Your task to perform on an android device: all mails in gmail Image 0: 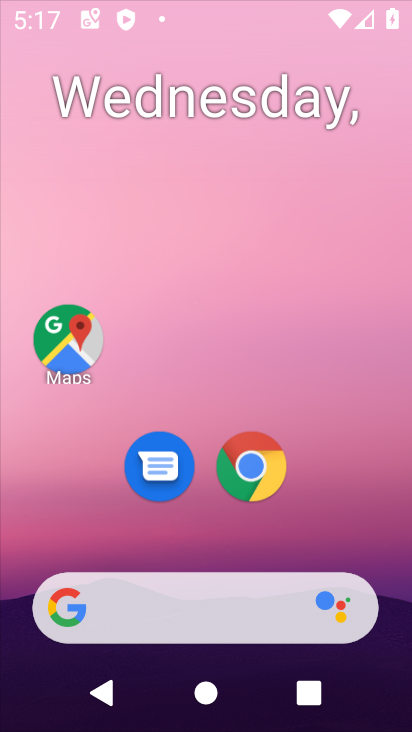
Step 0: click (380, 27)
Your task to perform on an android device: all mails in gmail Image 1: 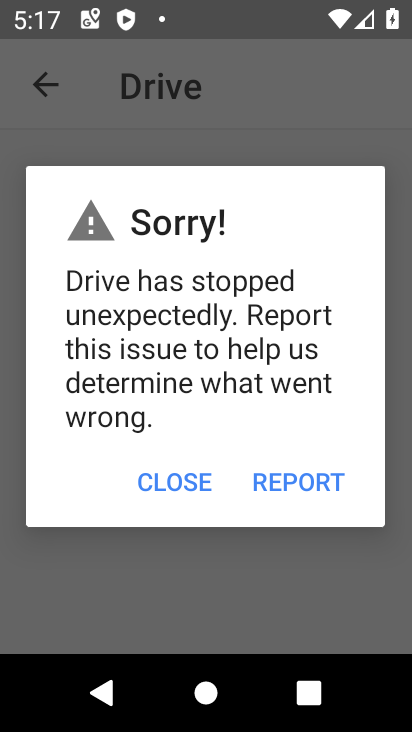
Step 1: press home button
Your task to perform on an android device: all mails in gmail Image 2: 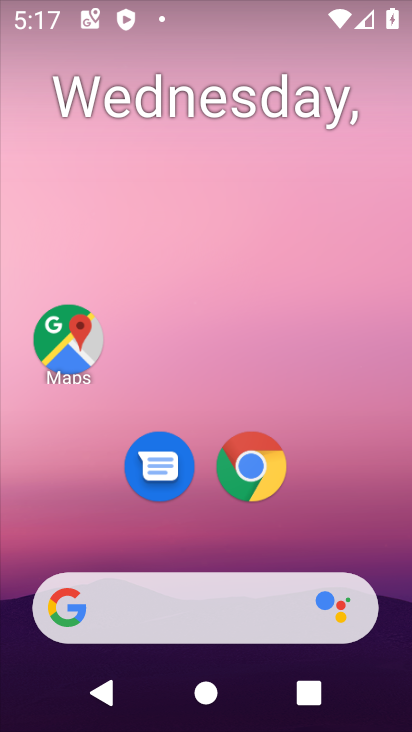
Step 2: drag from (401, 662) to (259, 144)
Your task to perform on an android device: all mails in gmail Image 3: 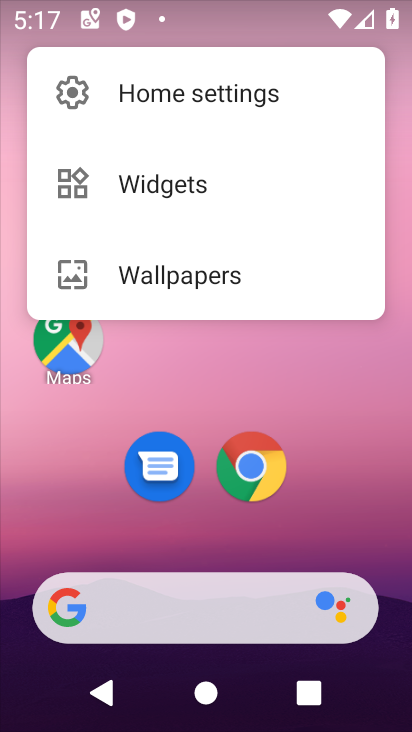
Step 3: drag from (305, 527) to (291, 187)
Your task to perform on an android device: all mails in gmail Image 4: 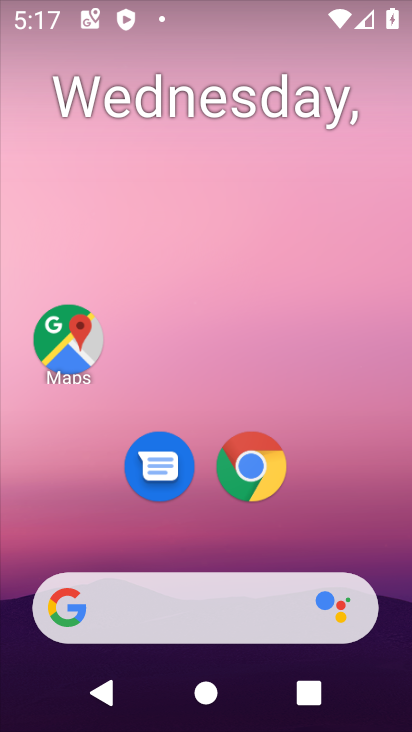
Step 4: drag from (320, 262) to (316, 11)
Your task to perform on an android device: all mails in gmail Image 5: 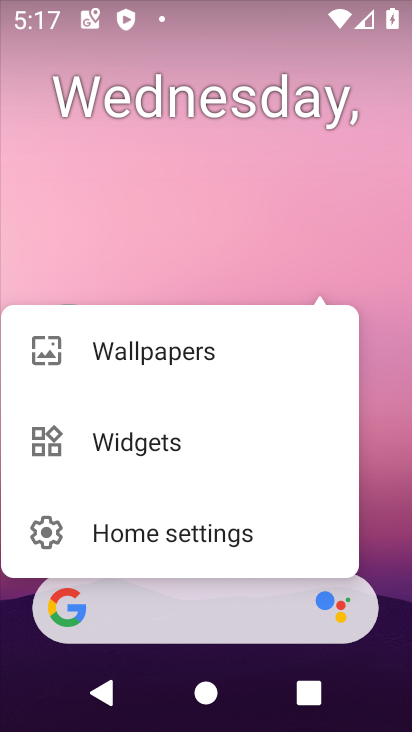
Step 5: drag from (326, 271) to (350, 60)
Your task to perform on an android device: all mails in gmail Image 6: 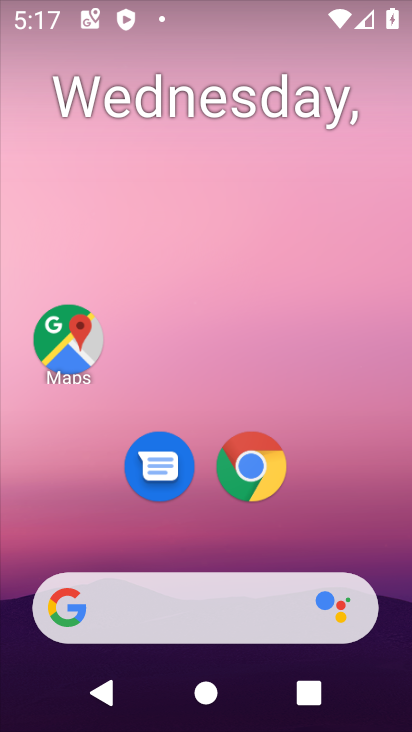
Step 6: drag from (375, 699) to (344, 100)
Your task to perform on an android device: all mails in gmail Image 7: 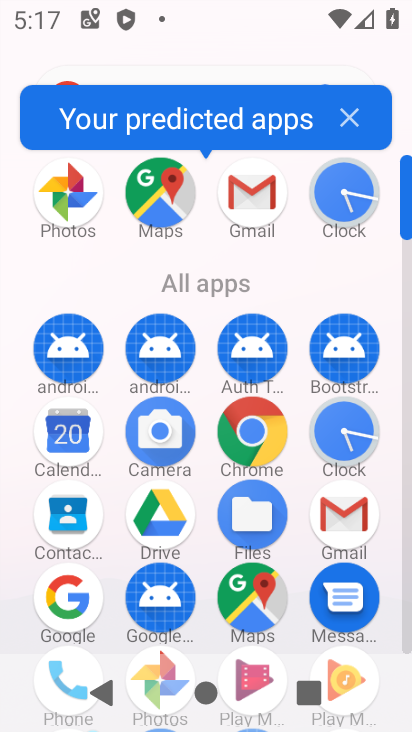
Step 7: click (249, 192)
Your task to perform on an android device: all mails in gmail Image 8: 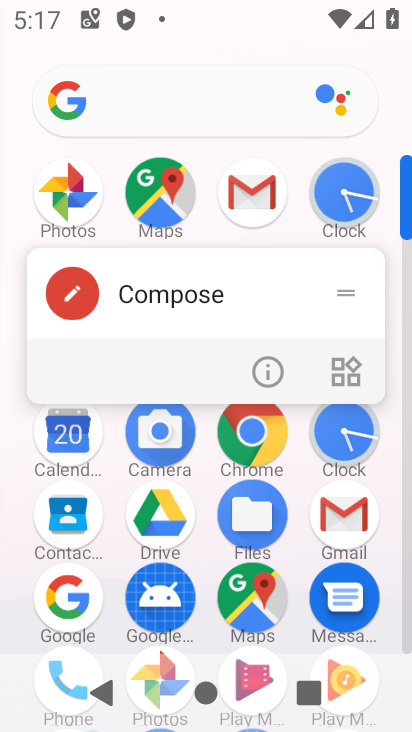
Step 8: click (249, 192)
Your task to perform on an android device: all mails in gmail Image 9: 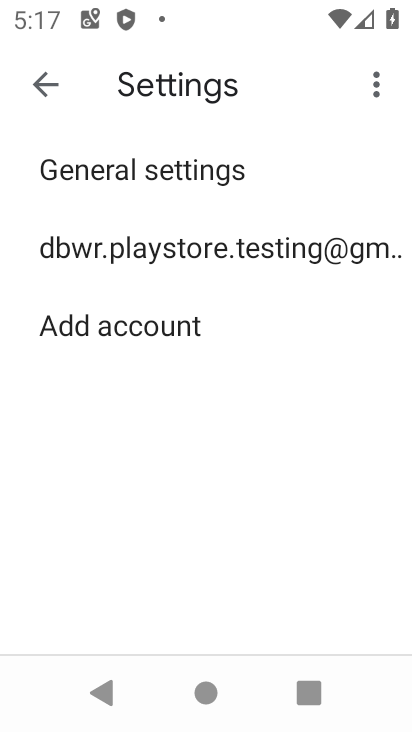
Step 9: click (33, 88)
Your task to perform on an android device: all mails in gmail Image 10: 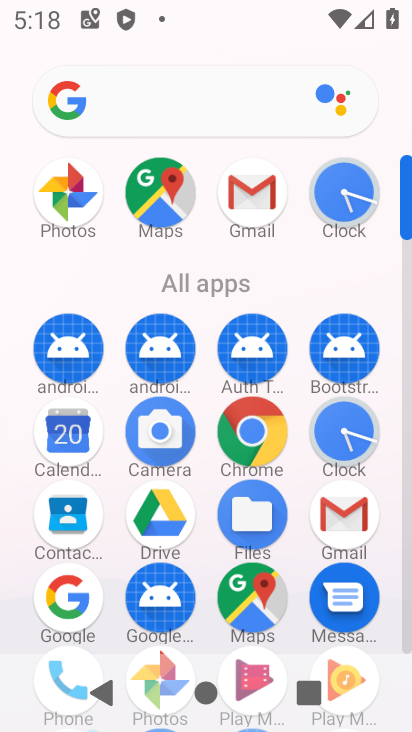
Step 10: click (252, 196)
Your task to perform on an android device: all mails in gmail Image 11: 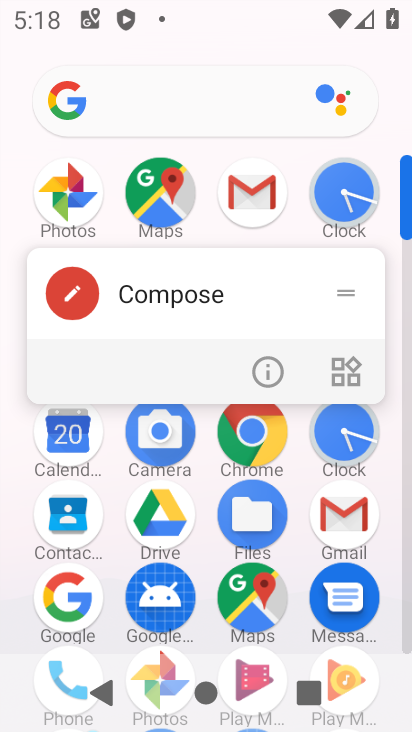
Step 11: click (252, 196)
Your task to perform on an android device: all mails in gmail Image 12: 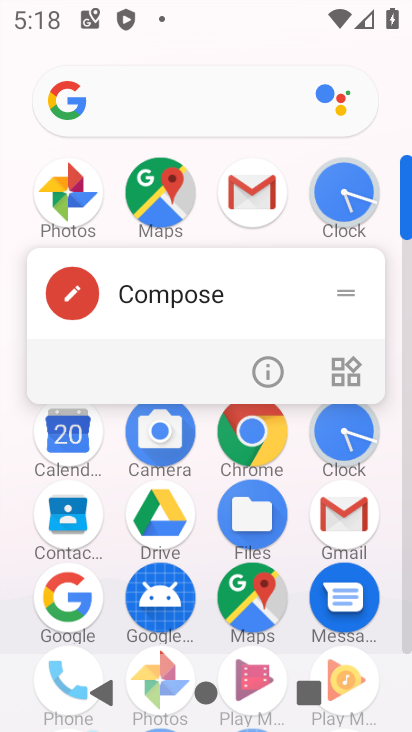
Step 12: click (252, 196)
Your task to perform on an android device: all mails in gmail Image 13: 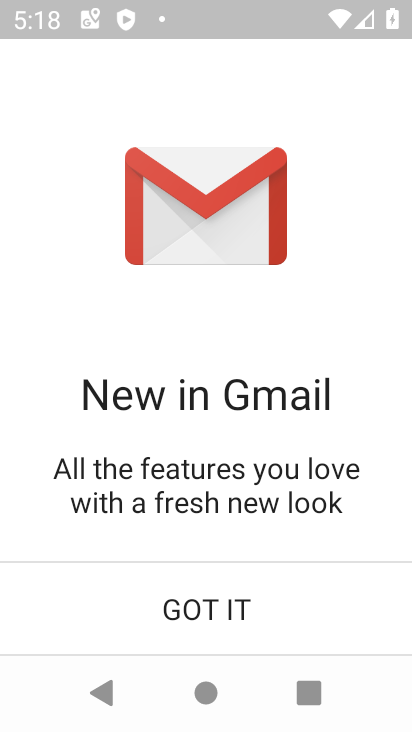
Step 13: click (210, 604)
Your task to perform on an android device: all mails in gmail Image 14: 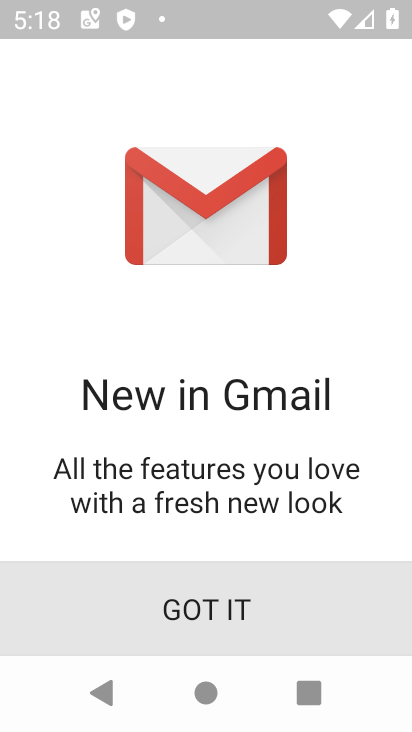
Step 14: click (210, 604)
Your task to perform on an android device: all mails in gmail Image 15: 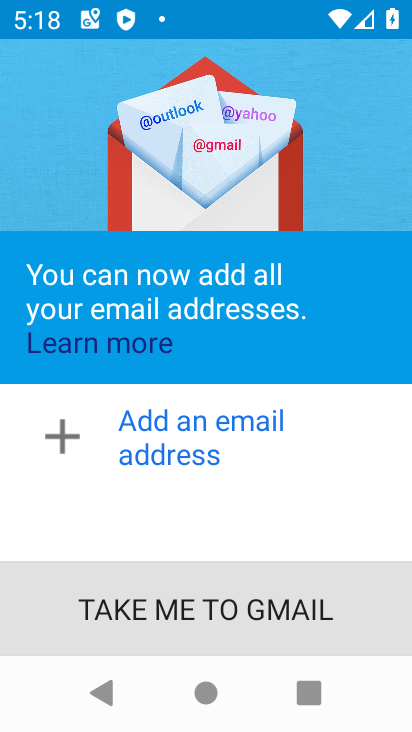
Step 15: click (210, 604)
Your task to perform on an android device: all mails in gmail Image 16: 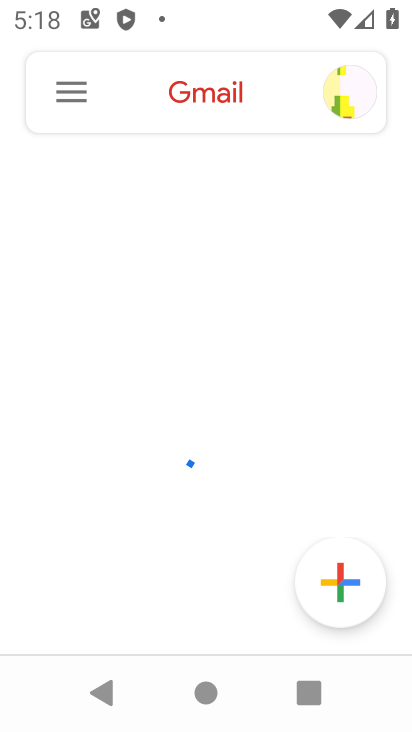
Step 16: click (63, 84)
Your task to perform on an android device: all mails in gmail Image 17: 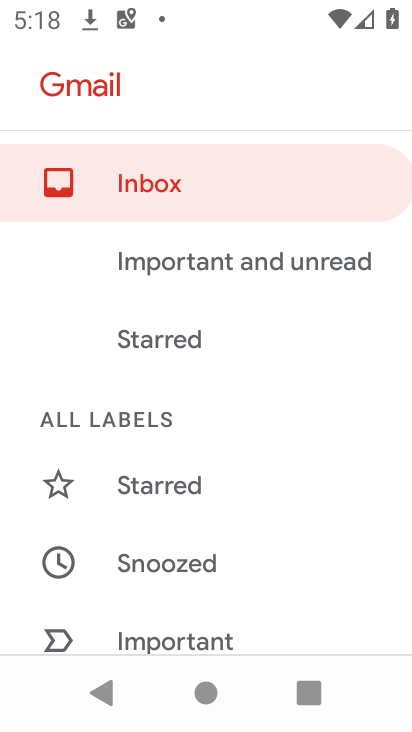
Step 17: drag from (179, 412) to (198, 64)
Your task to perform on an android device: all mails in gmail Image 18: 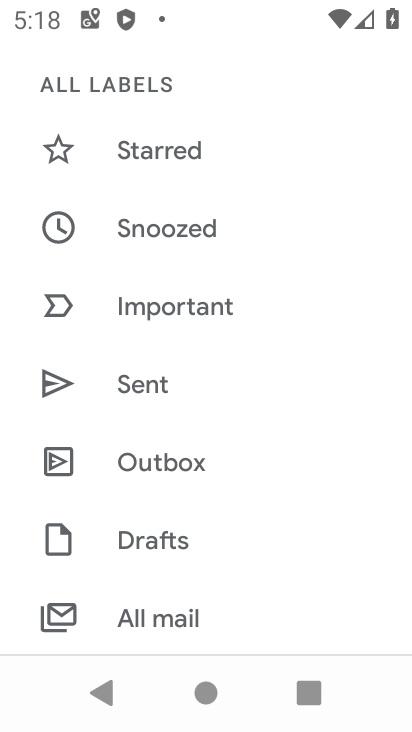
Step 18: click (188, 628)
Your task to perform on an android device: all mails in gmail Image 19: 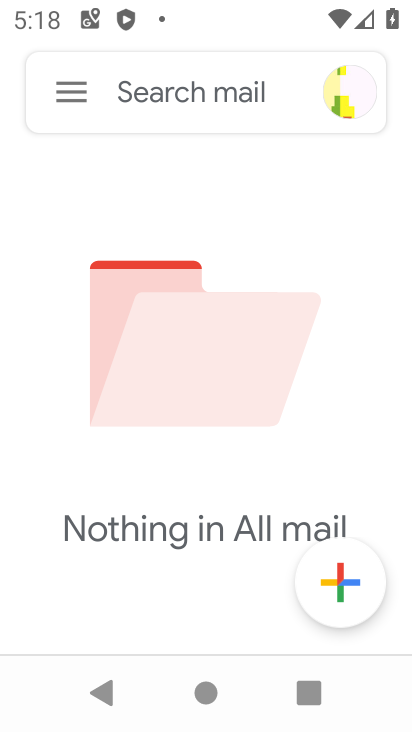
Step 19: task complete